Your task to perform on an android device: uninstall "Truecaller" Image 0: 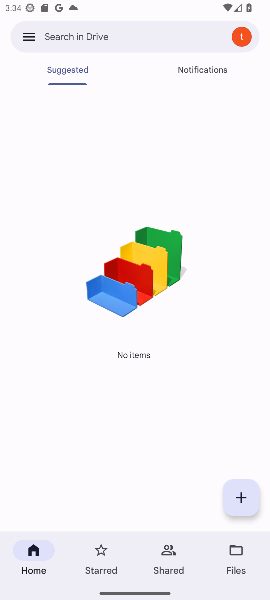
Step 0: press home button
Your task to perform on an android device: uninstall "Truecaller" Image 1: 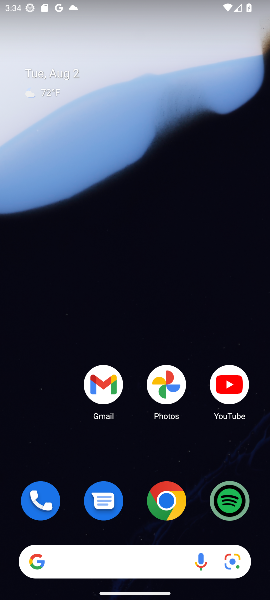
Step 1: drag from (133, 433) to (140, 39)
Your task to perform on an android device: uninstall "Truecaller" Image 2: 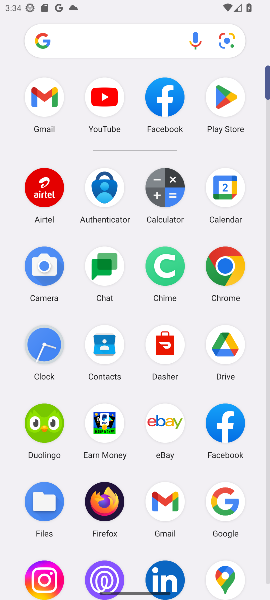
Step 2: click (233, 97)
Your task to perform on an android device: uninstall "Truecaller" Image 3: 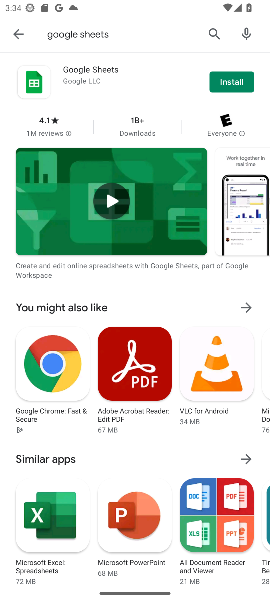
Step 3: click (213, 31)
Your task to perform on an android device: uninstall "Truecaller" Image 4: 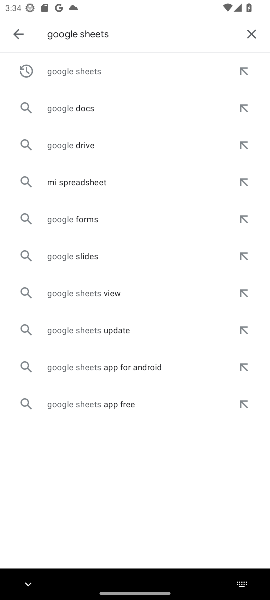
Step 4: click (256, 30)
Your task to perform on an android device: uninstall "Truecaller" Image 5: 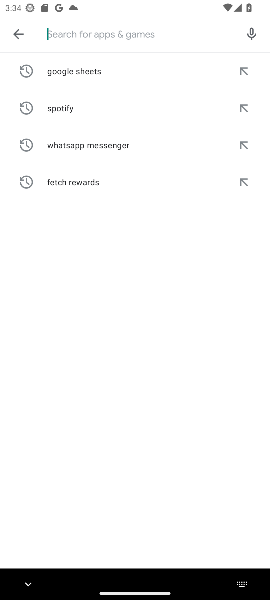
Step 5: type "Truecaller"
Your task to perform on an android device: uninstall "Truecaller" Image 6: 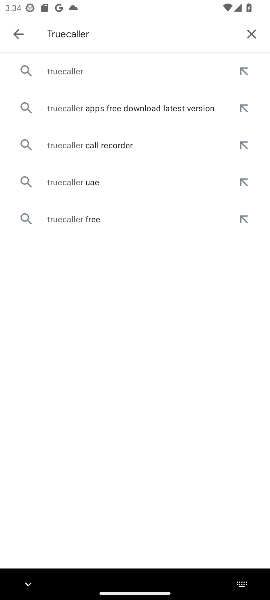
Step 6: click (57, 78)
Your task to perform on an android device: uninstall "Truecaller" Image 7: 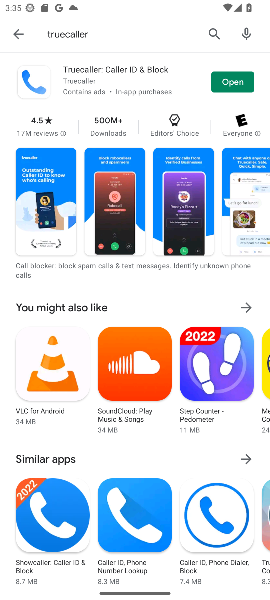
Step 7: click (76, 83)
Your task to perform on an android device: uninstall "Truecaller" Image 8: 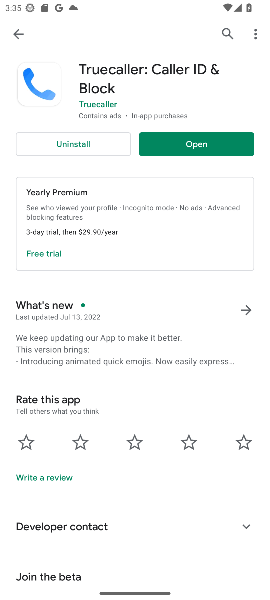
Step 8: click (63, 143)
Your task to perform on an android device: uninstall "Truecaller" Image 9: 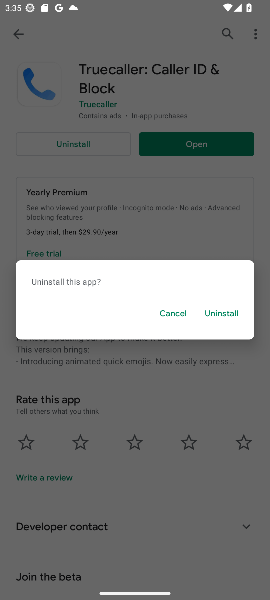
Step 9: click (229, 312)
Your task to perform on an android device: uninstall "Truecaller" Image 10: 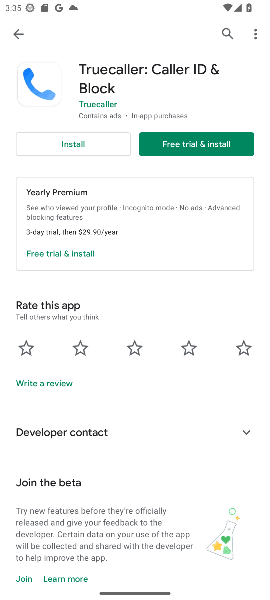
Step 10: task complete